Your task to perform on an android device: Go to Yahoo.com Image 0: 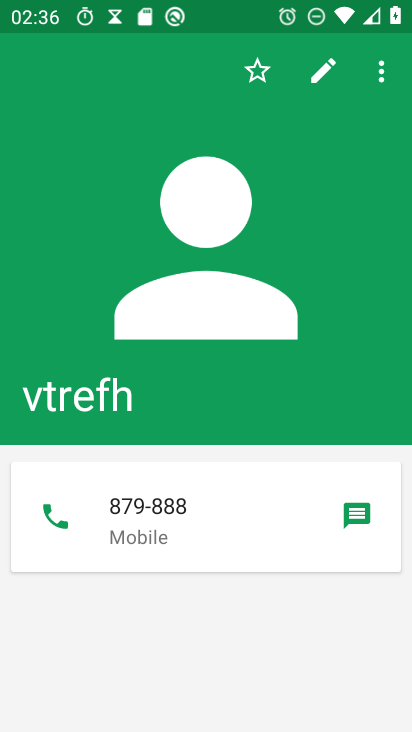
Step 0: press home button
Your task to perform on an android device: Go to Yahoo.com Image 1: 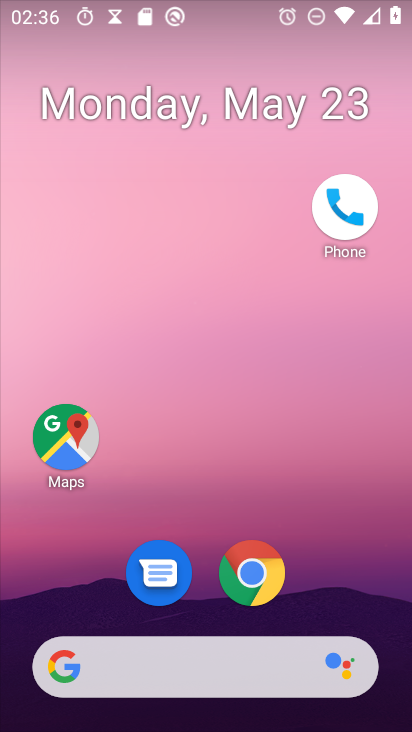
Step 1: click (258, 588)
Your task to perform on an android device: Go to Yahoo.com Image 2: 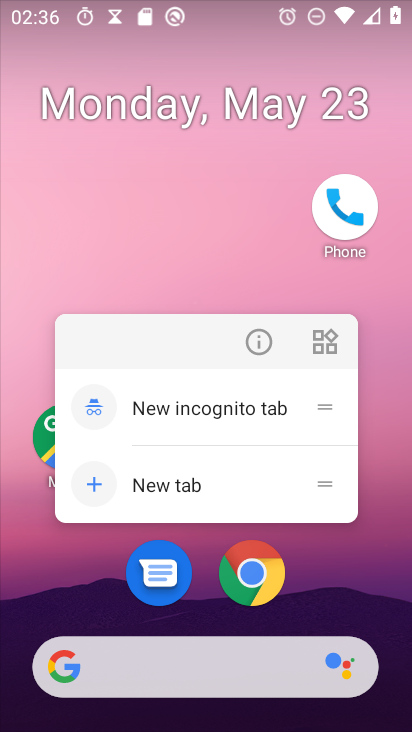
Step 2: click (252, 583)
Your task to perform on an android device: Go to Yahoo.com Image 3: 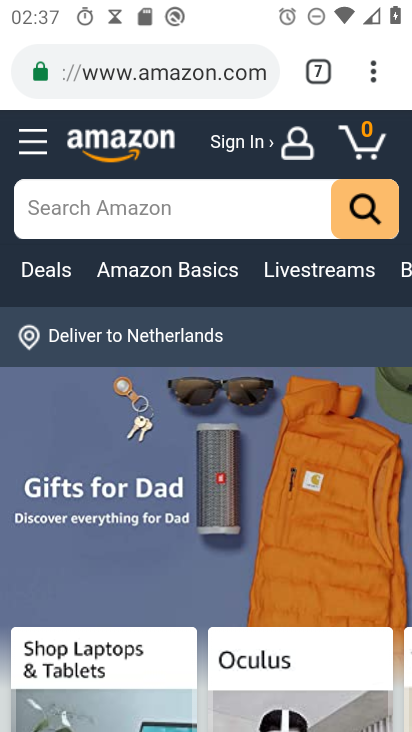
Step 3: drag from (373, 72) to (328, 149)
Your task to perform on an android device: Go to Yahoo.com Image 4: 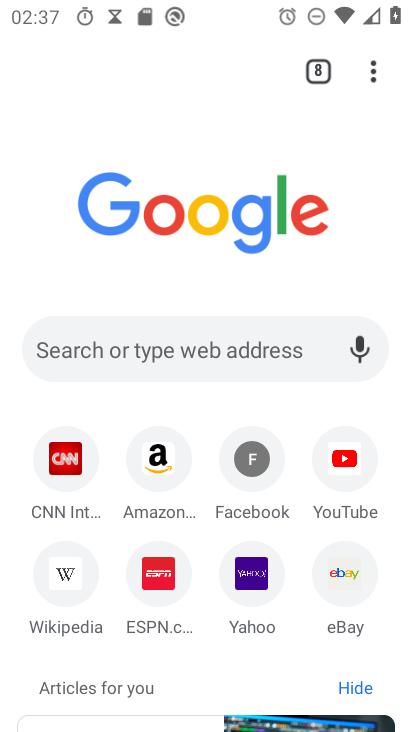
Step 4: click (259, 576)
Your task to perform on an android device: Go to Yahoo.com Image 5: 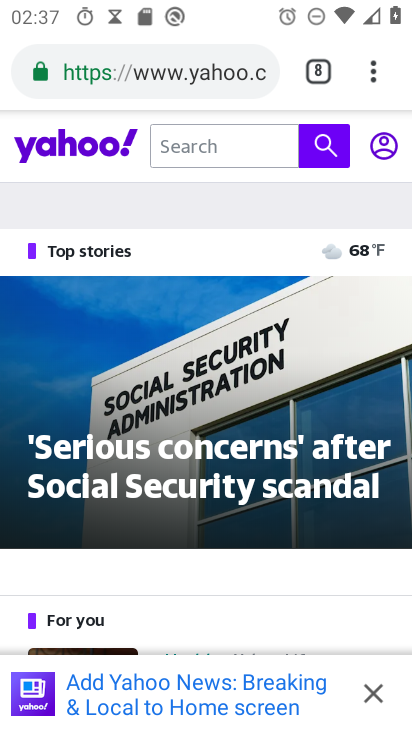
Step 5: task complete